Your task to perform on an android device: delete browsing data in the chrome app Image 0: 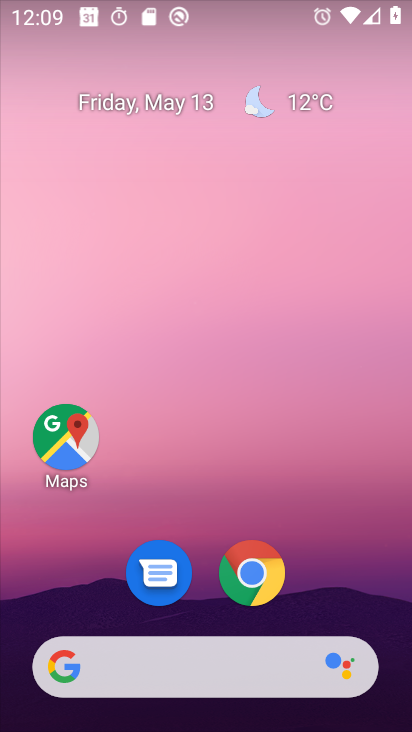
Step 0: click (252, 564)
Your task to perform on an android device: delete browsing data in the chrome app Image 1: 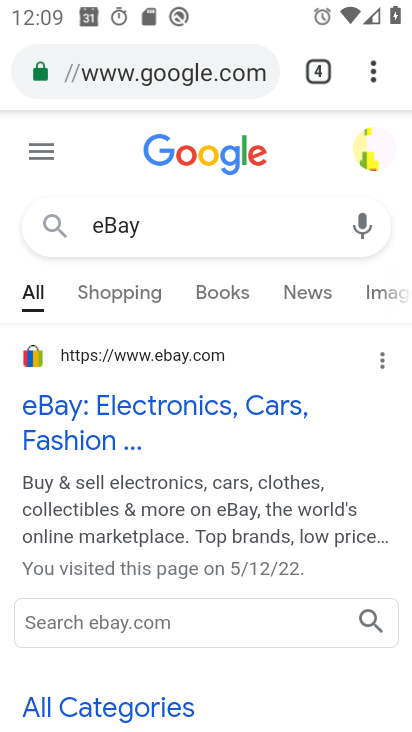
Step 1: click (373, 72)
Your task to perform on an android device: delete browsing data in the chrome app Image 2: 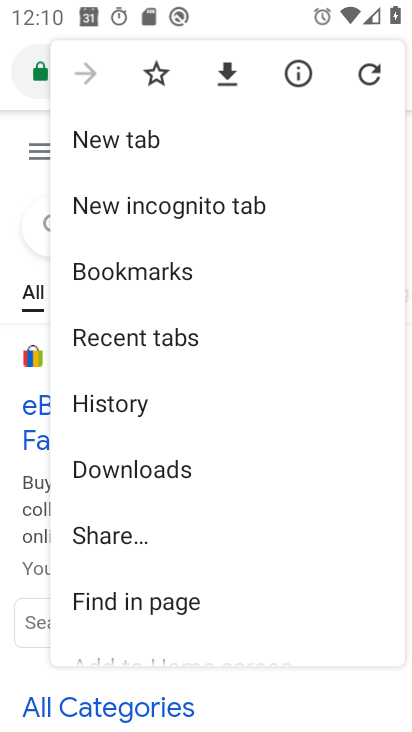
Step 2: click (102, 407)
Your task to perform on an android device: delete browsing data in the chrome app Image 3: 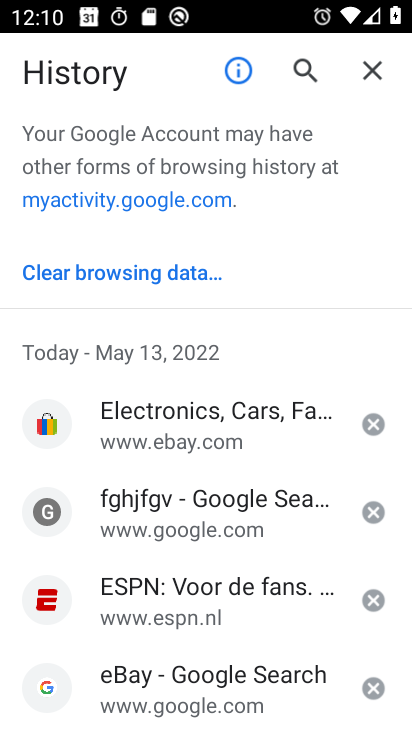
Step 3: click (111, 263)
Your task to perform on an android device: delete browsing data in the chrome app Image 4: 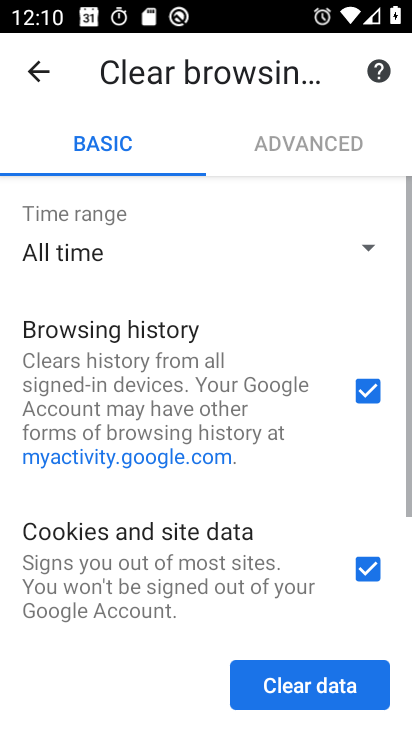
Step 4: click (283, 684)
Your task to perform on an android device: delete browsing data in the chrome app Image 5: 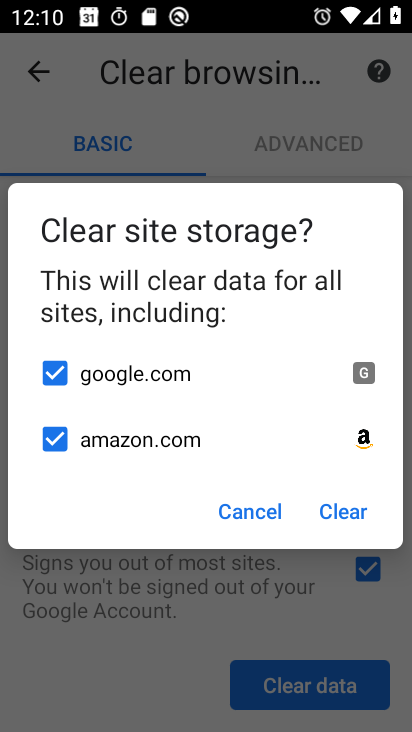
Step 5: click (337, 507)
Your task to perform on an android device: delete browsing data in the chrome app Image 6: 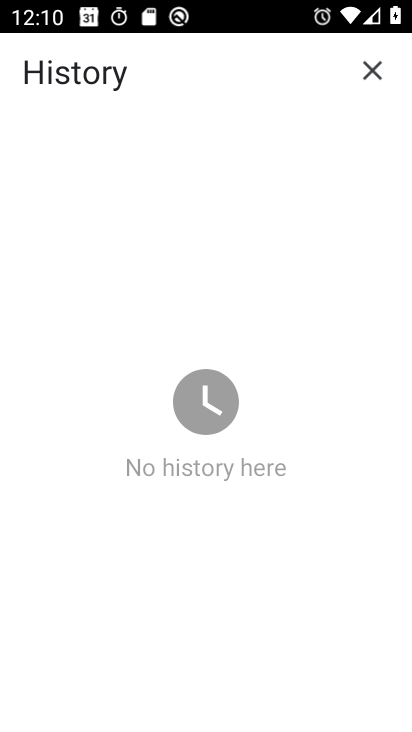
Step 6: task complete